Your task to perform on an android device: turn off notifications settings in the gmail app Image 0: 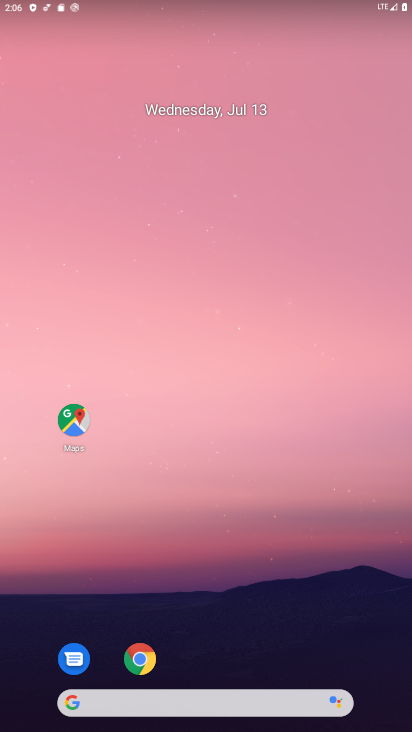
Step 0: drag from (374, 648) to (317, 195)
Your task to perform on an android device: turn off notifications settings in the gmail app Image 1: 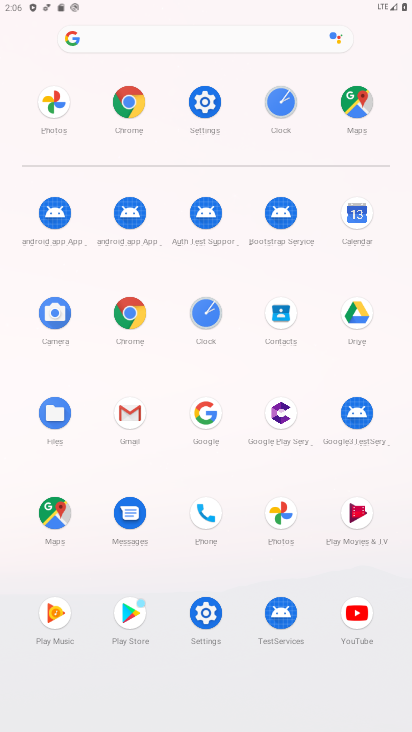
Step 1: click (132, 415)
Your task to perform on an android device: turn off notifications settings in the gmail app Image 2: 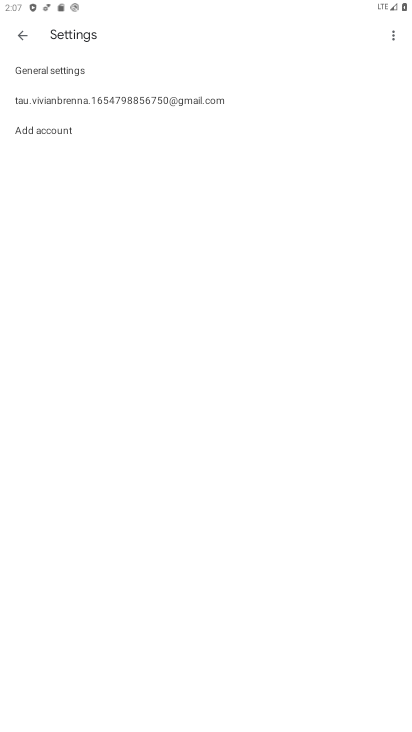
Step 2: click (96, 96)
Your task to perform on an android device: turn off notifications settings in the gmail app Image 3: 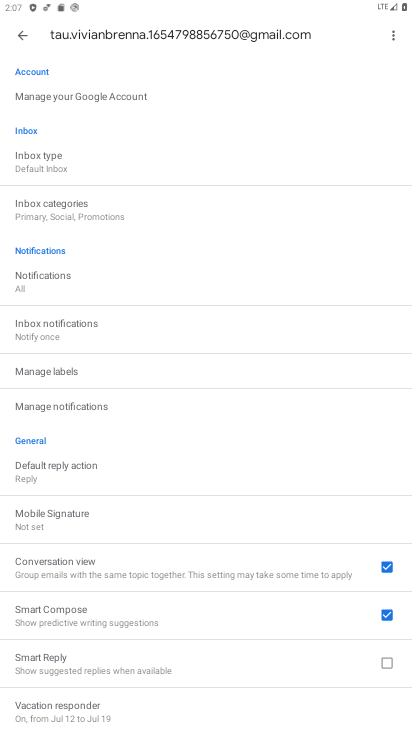
Step 3: click (60, 406)
Your task to perform on an android device: turn off notifications settings in the gmail app Image 4: 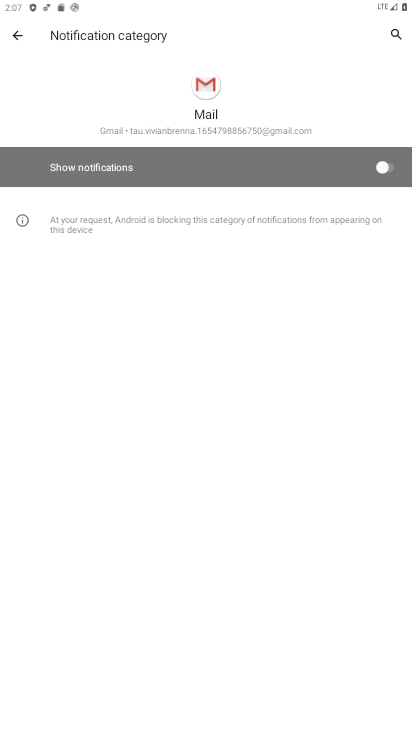
Step 4: task complete